Your task to perform on an android device: Open calendar and show me the first week of next month Image 0: 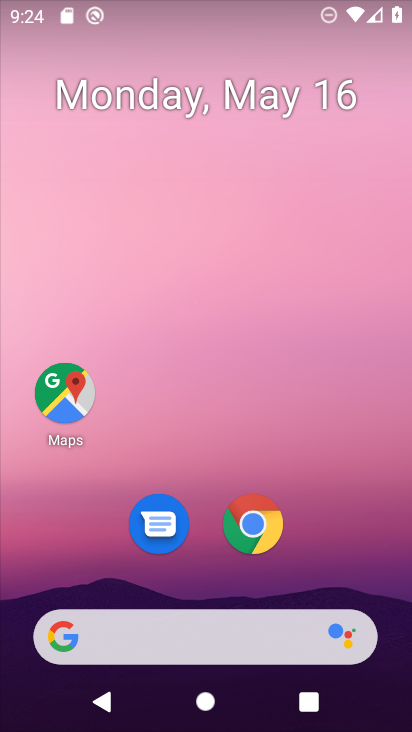
Step 0: drag from (331, 520) to (321, 47)
Your task to perform on an android device: Open calendar and show me the first week of next month Image 1: 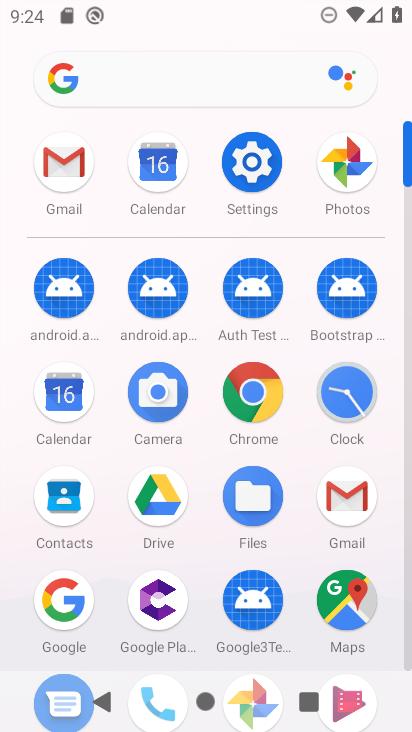
Step 1: click (163, 163)
Your task to perform on an android device: Open calendar and show me the first week of next month Image 2: 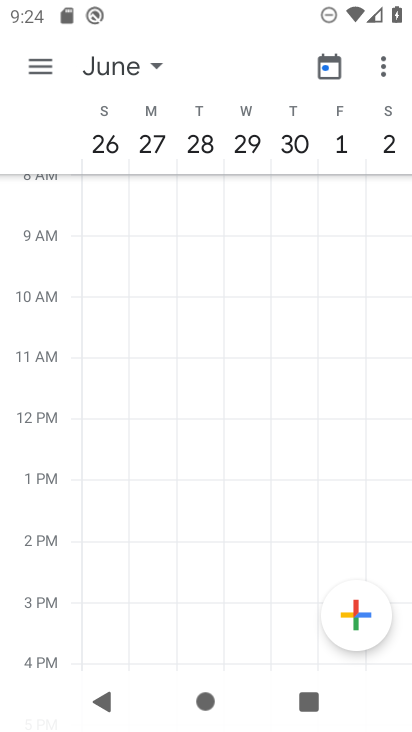
Step 2: task complete